Your task to perform on an android device: Show me the best 1080p monitor on Target.com Image 0: 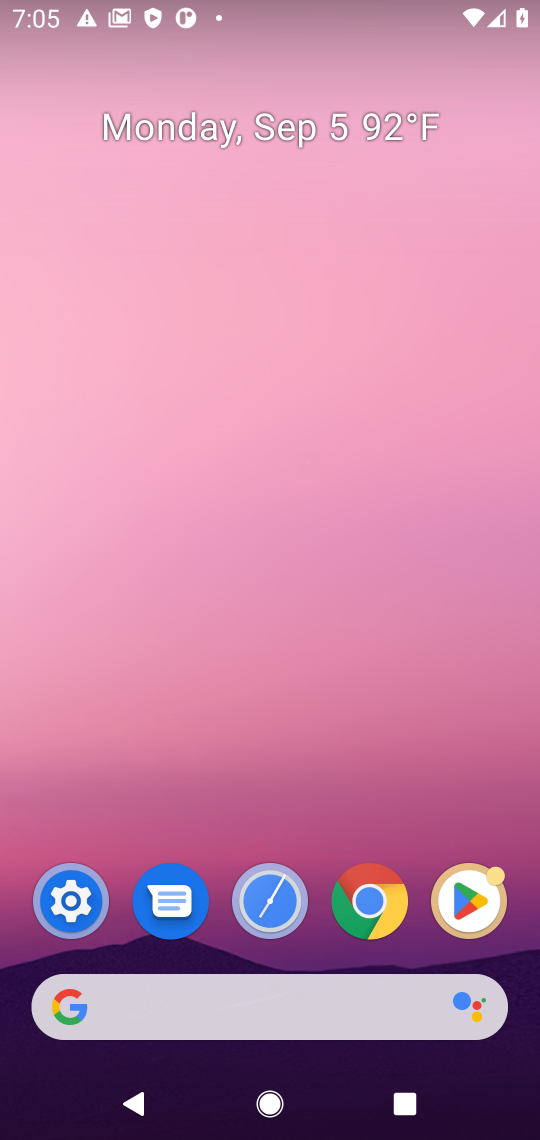
Step 0: click (382, 908)
Your task to perform on an android device: Show me the best 1080p monitor on Target.com Image 1: 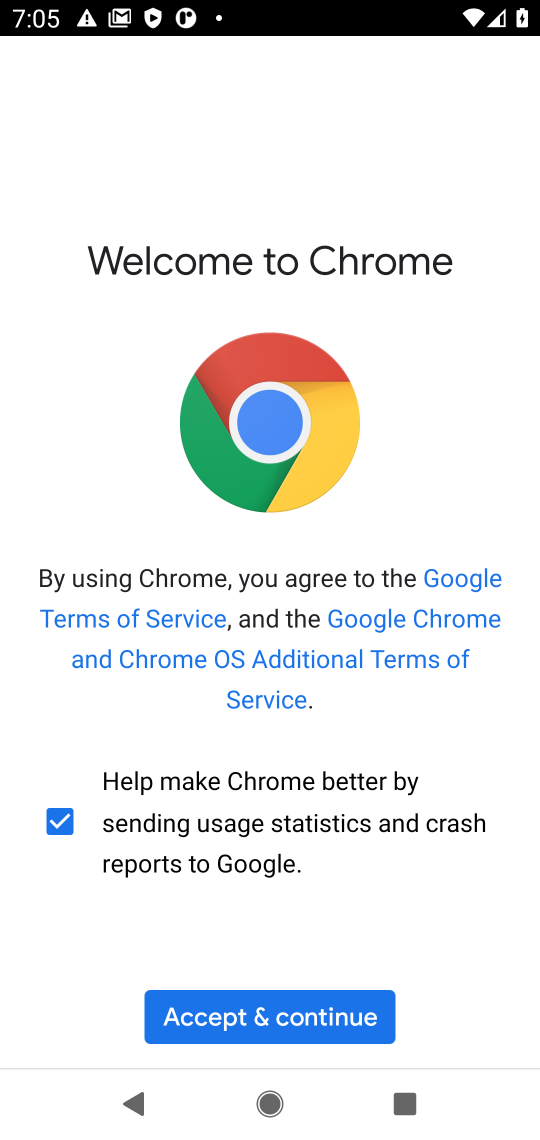
Step 1: click (290, 986)
Your task to perform on an android device: Show me the best 1080p monitor on Target.com Image 2: 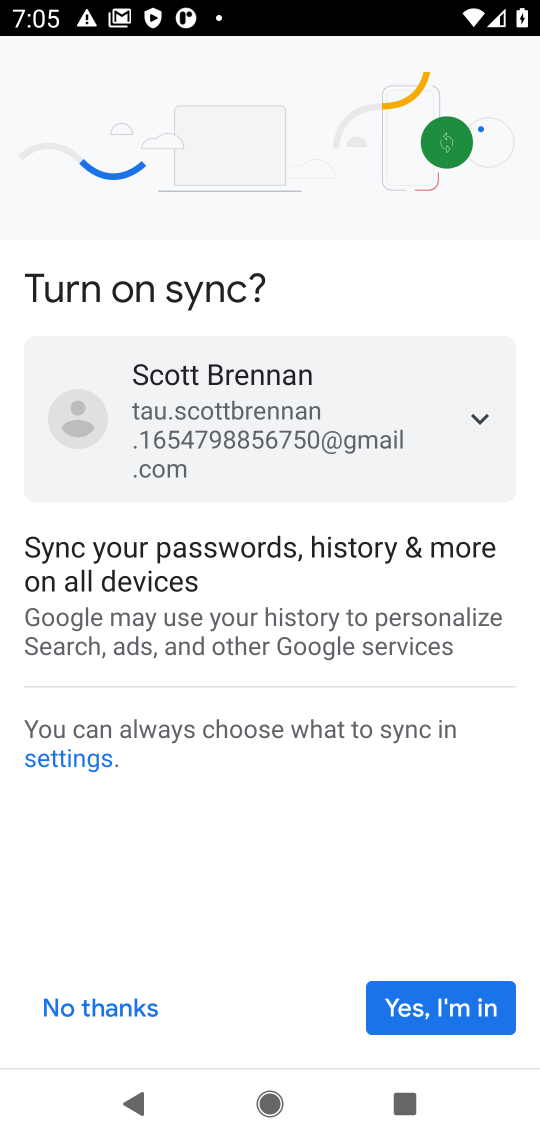
Step 2: click (403, 1015)
Your task to perform on an android device: Show me the best 1080p monitor on Target.com Image 3: 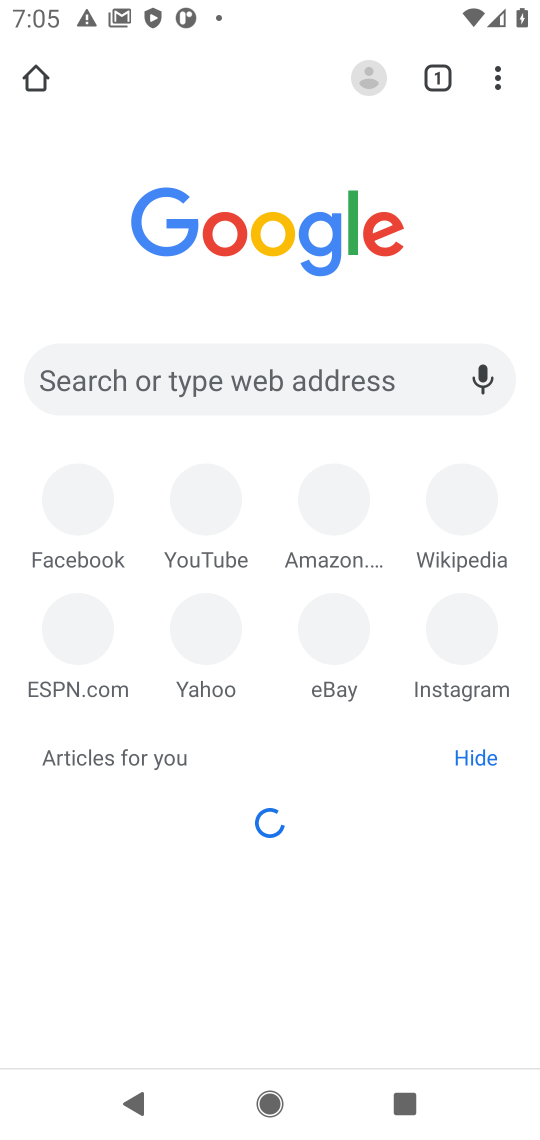
Step 3: click (278, 369)
Your task to perform on an android device: Show me the best 1080p monitor on Target.com Image 4: 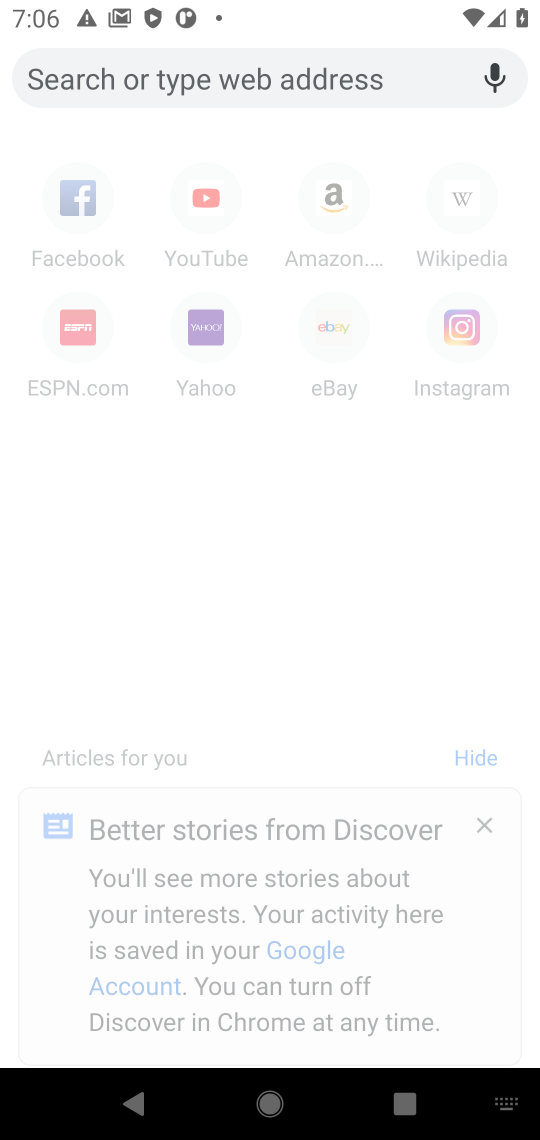
Step 4: type "1080p monitor"
Your task to perform on an android device: Show me the best 1080p monitor on Target.com Image 5: 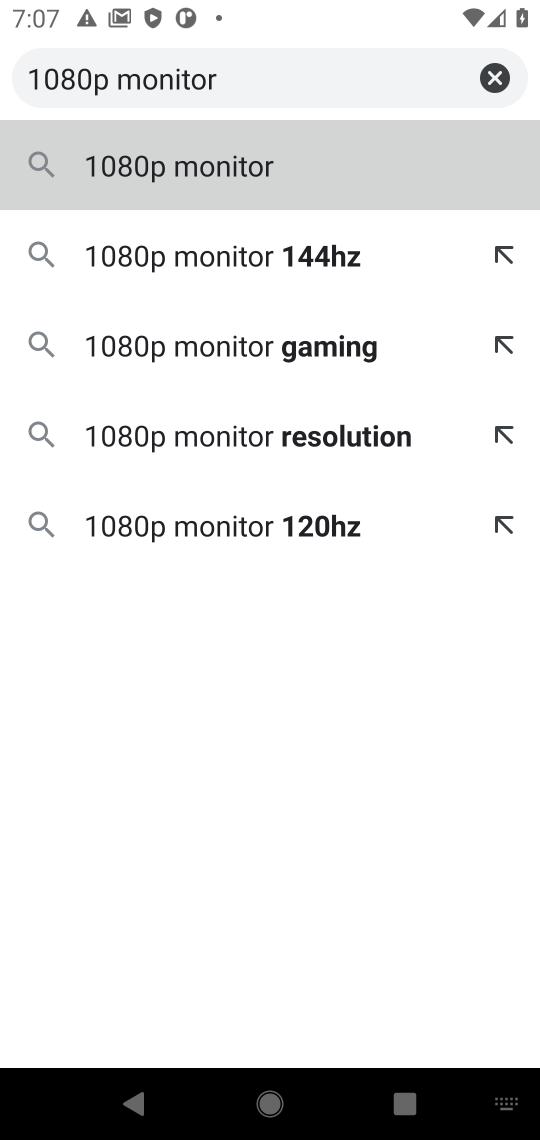
Step 5: click (225, 168)
Your task to perform on an android device: Show me the best 1080p monitor on Target.com Image 6: 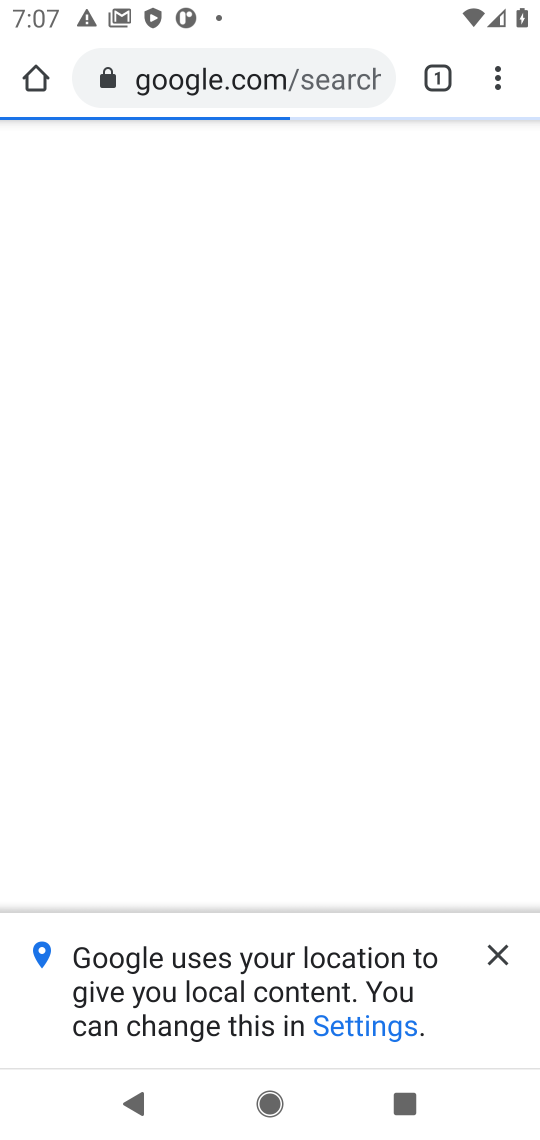
Step 6: task complete